Your task to perform on an android device: open app "Etsy: Buy & Sell Unique Items" Image 0: 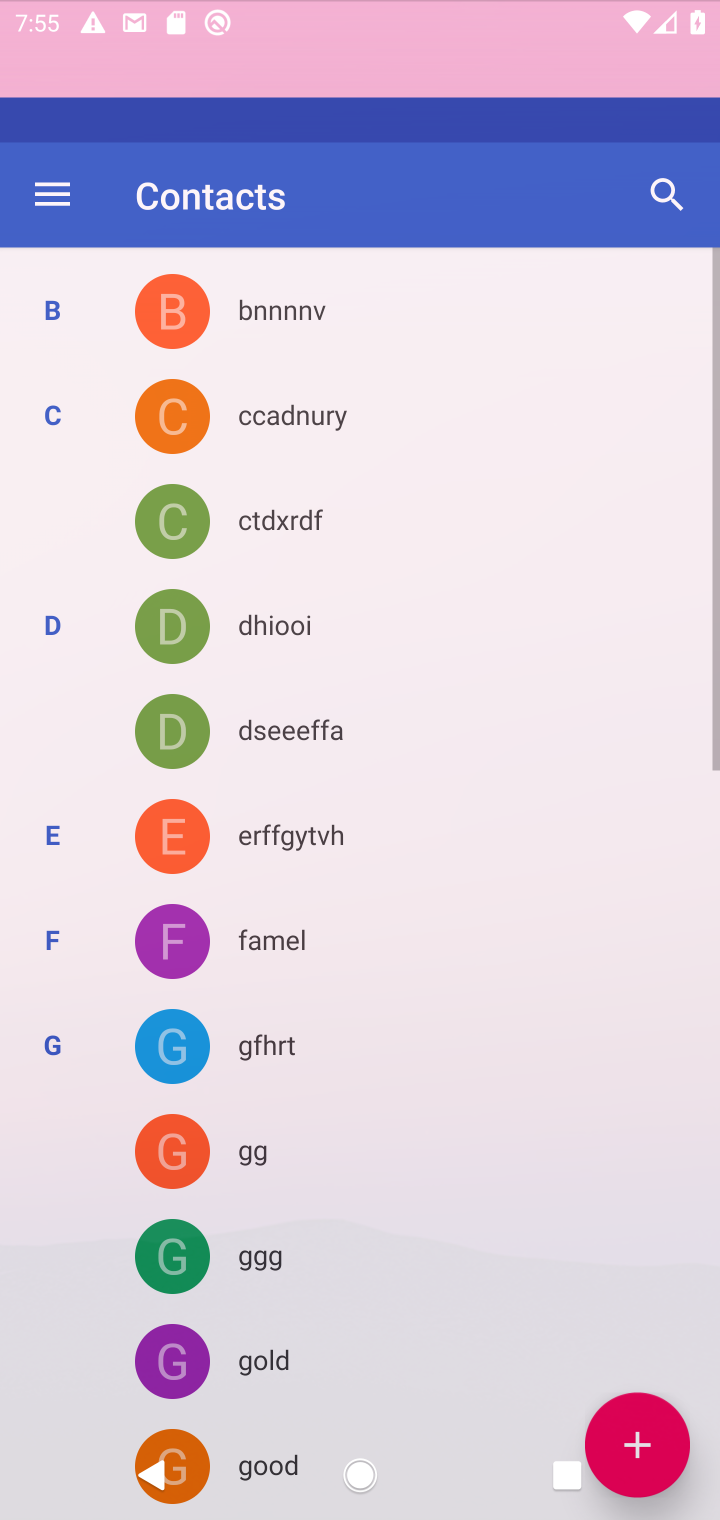
Step 0: press home button
Your task to perform on an android device: open app "Etsy: Buy & Sell Unique Items" Image 1: 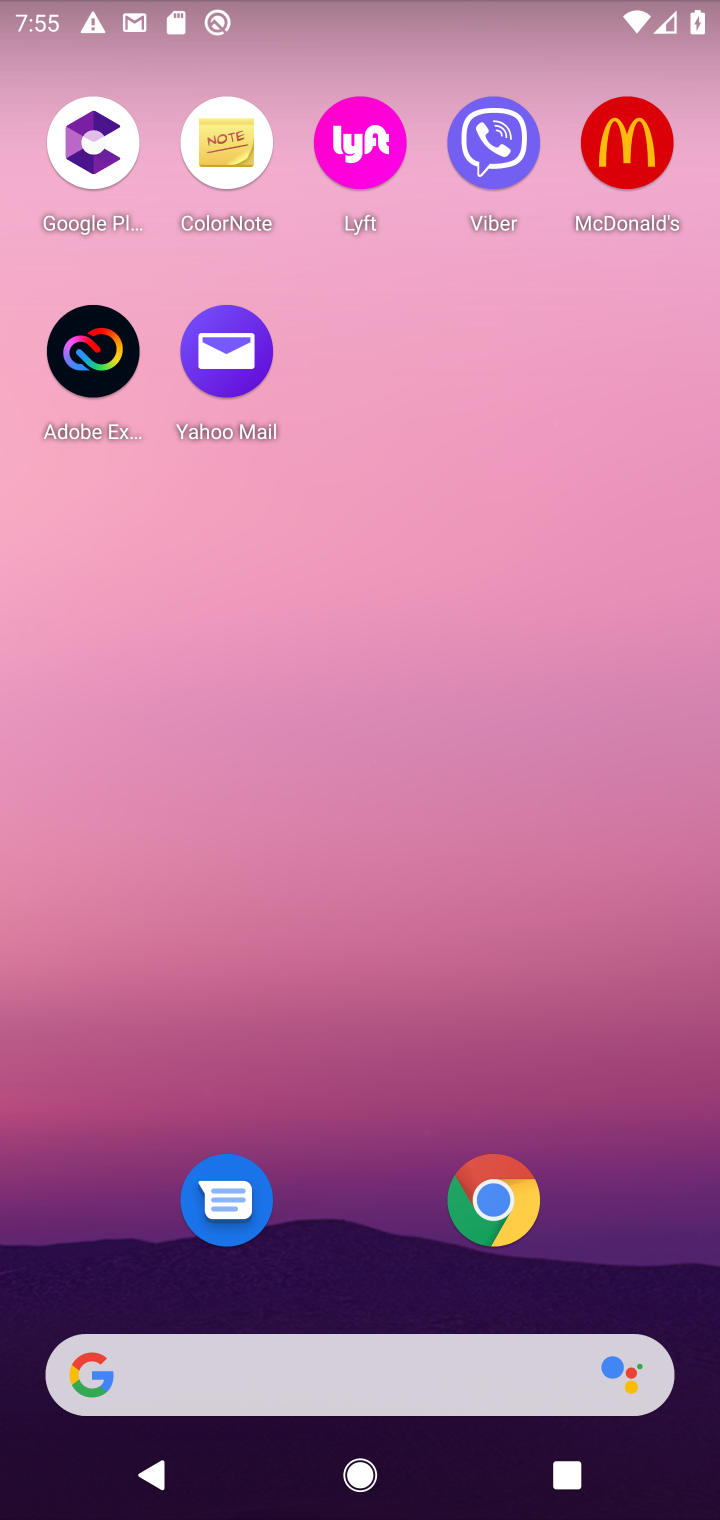
Step 1: drag from (424, 1088) to (471, 20)
Your task to perform on an android device: open app "Etsy: Buy & Sell Unique Items" Image 2: 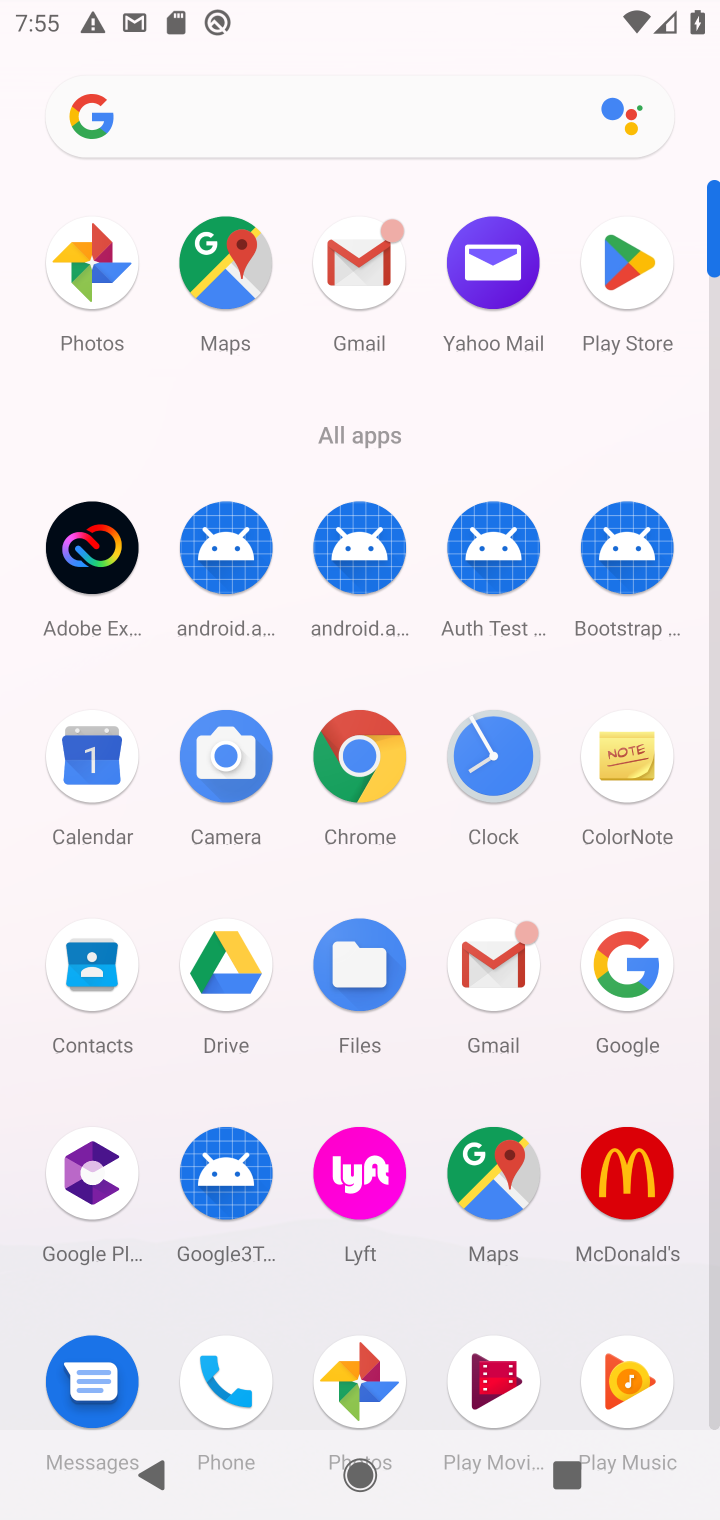
Step 2: click (637, 249)
Your task to perform on an android device: open app "Etsy: Buy & Sell Unique Items" Image 3: 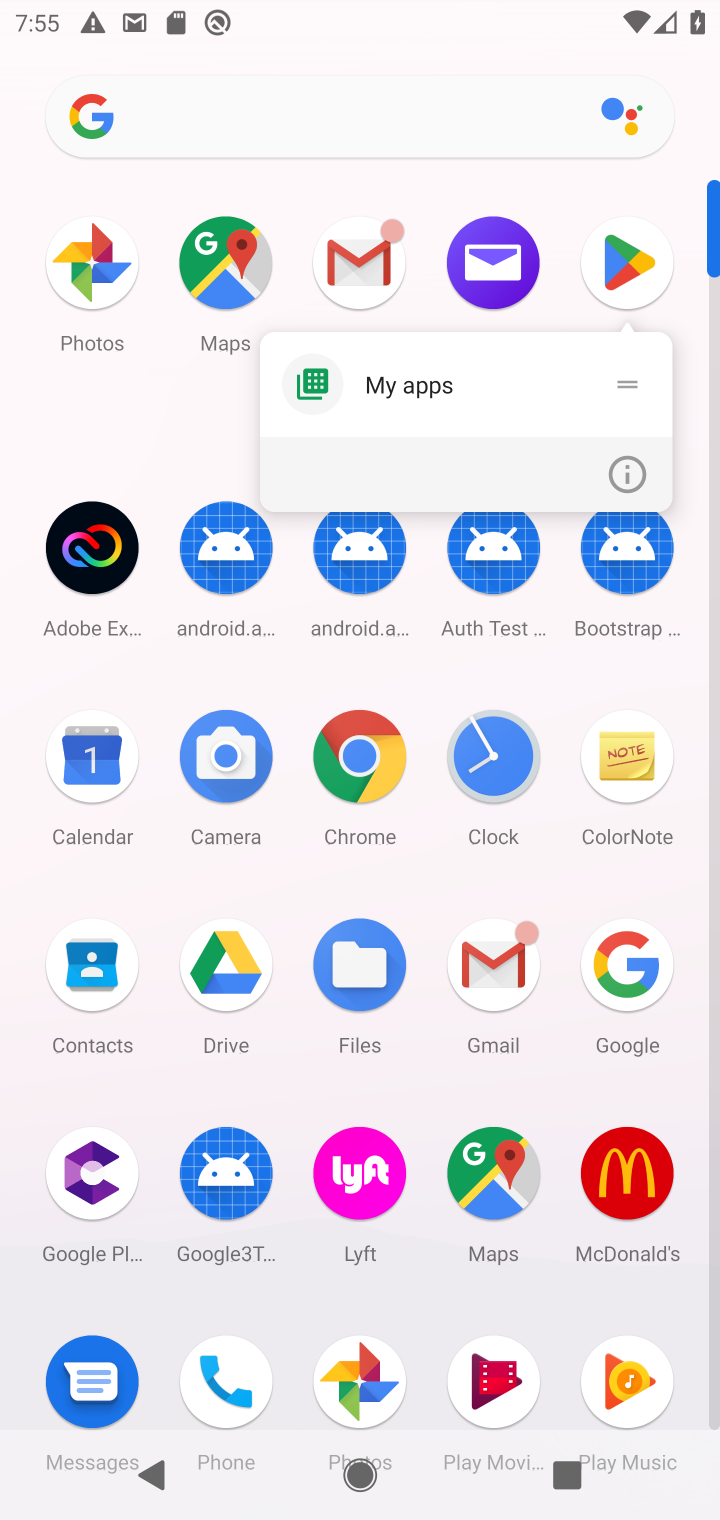
Step 3: click (629, 281)
Your task to perform on an android device: open app "Etsy: Buy & Sell Unique Items" Image 4: 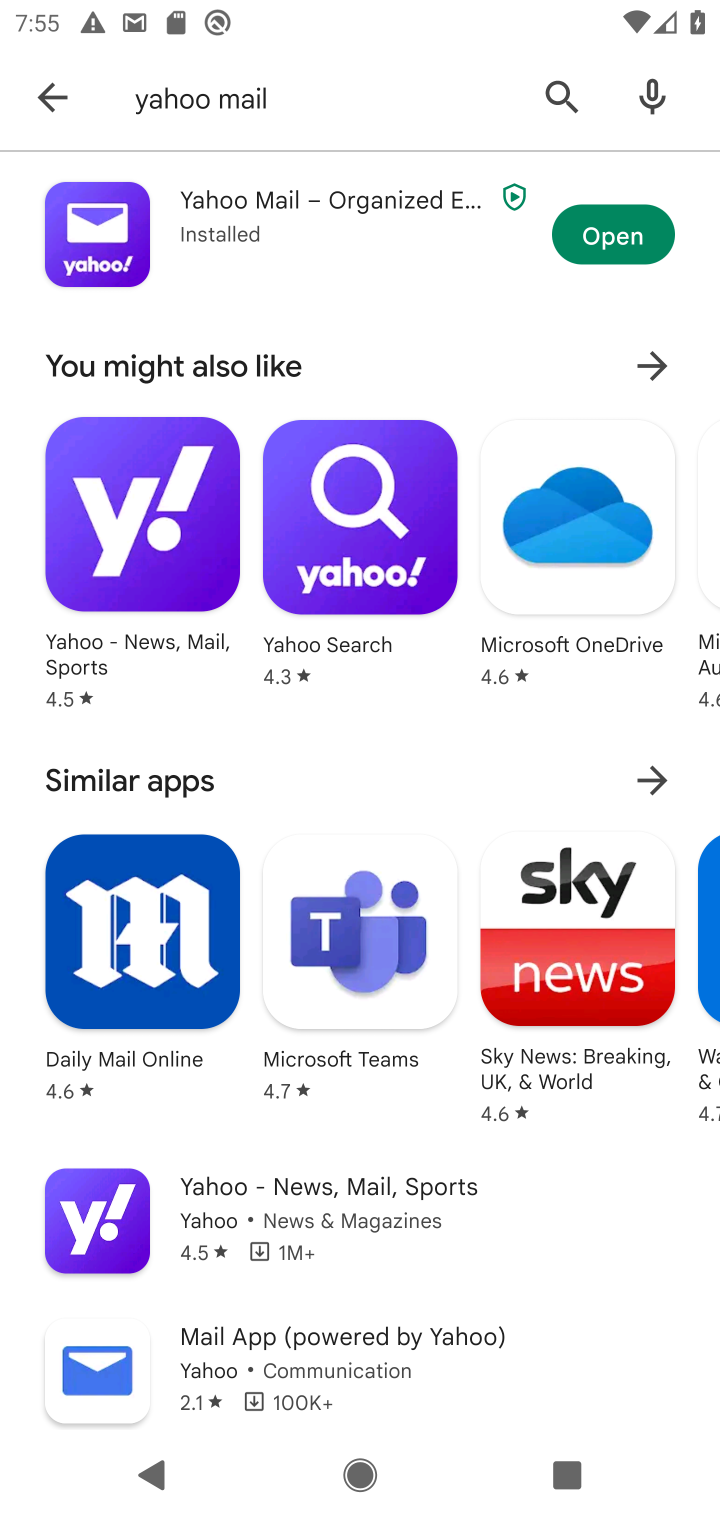
Step 4: click (563, 95)
Your task to perform on an android device: open app "Etsy: Buy & Sell Unique Items" Image 5: 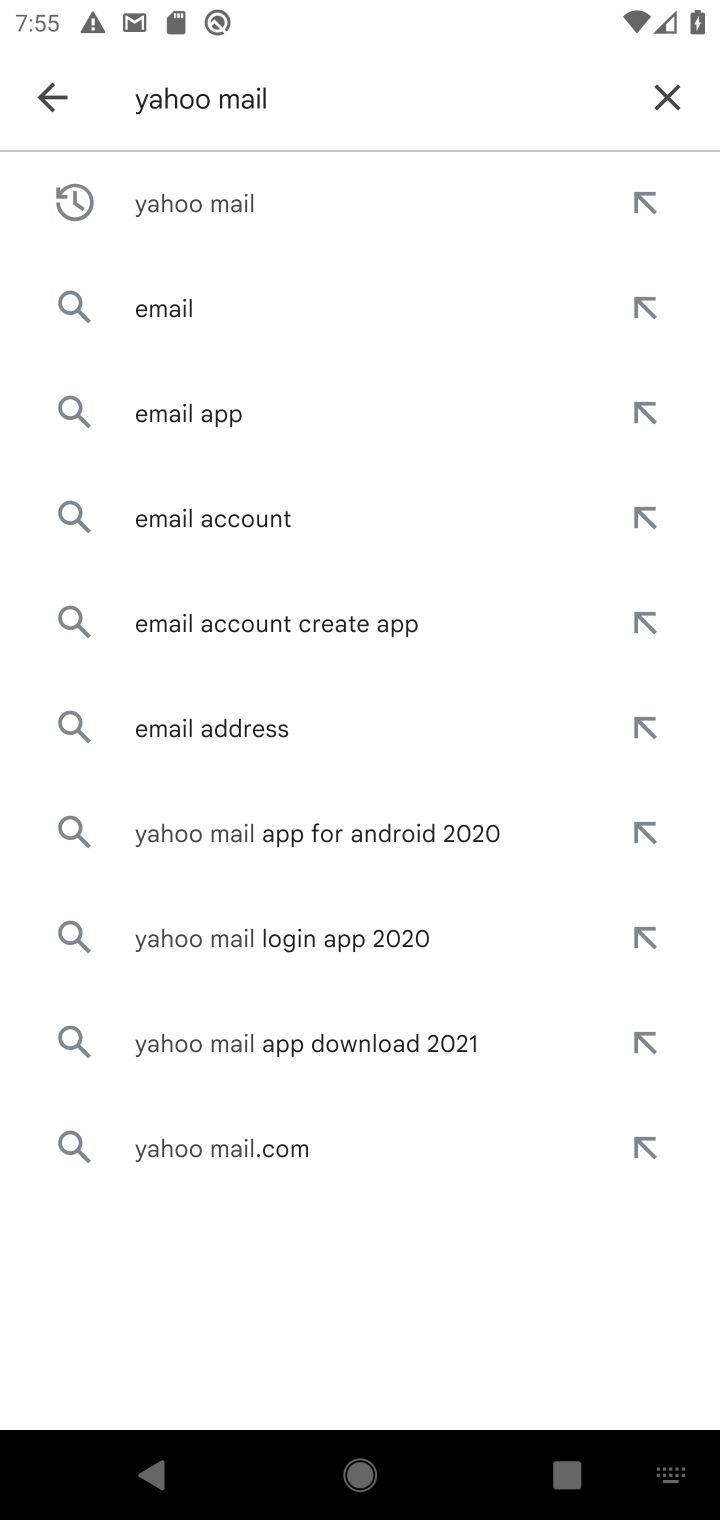
Step 5: click (661, 94)
Your task to perform on an android device: open app "Etsy: Buy & Sell Unique Items" Image 6: 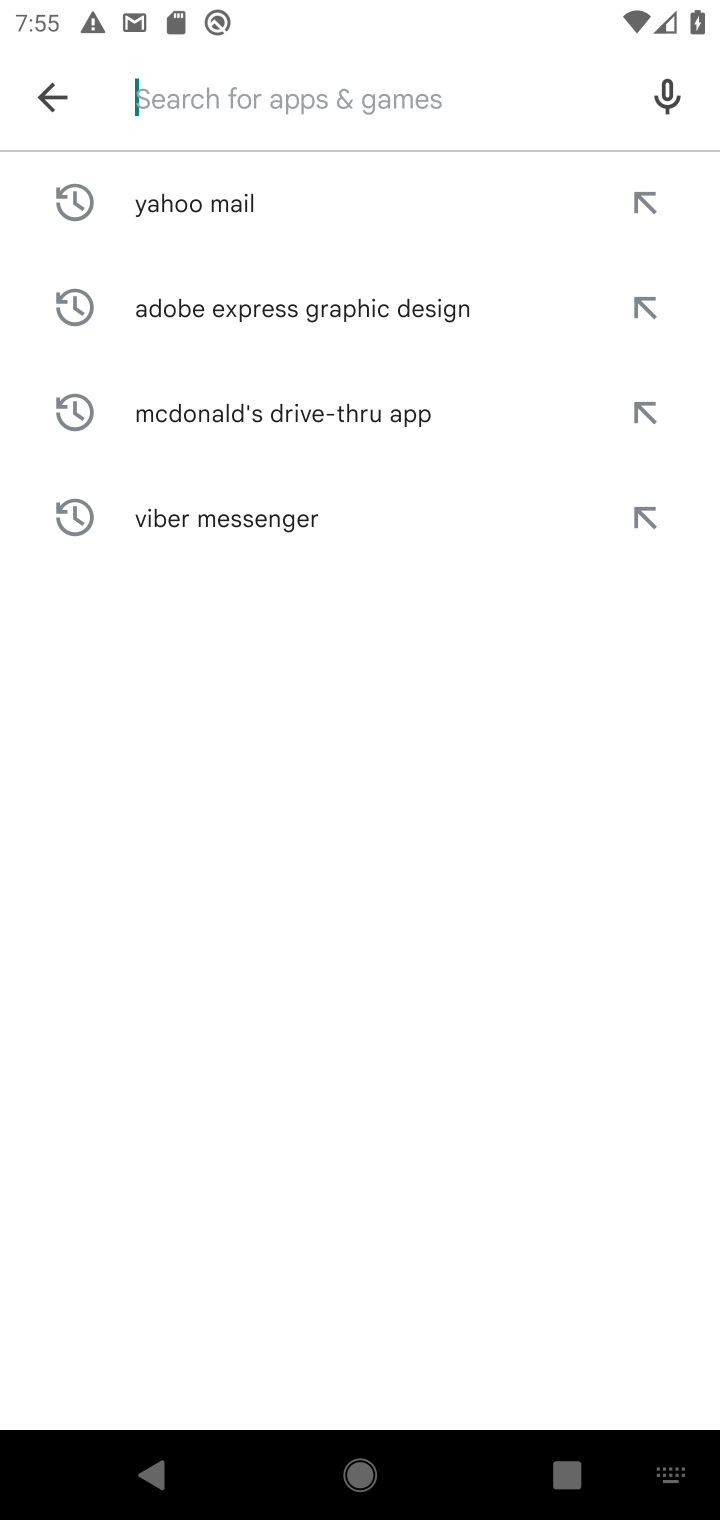
Step 6: type "Etsy: Buy & Sell Unique Items"
Your task to perform on an android device: open app "Etsy: Buy & Sell Unique Items" Image 7: 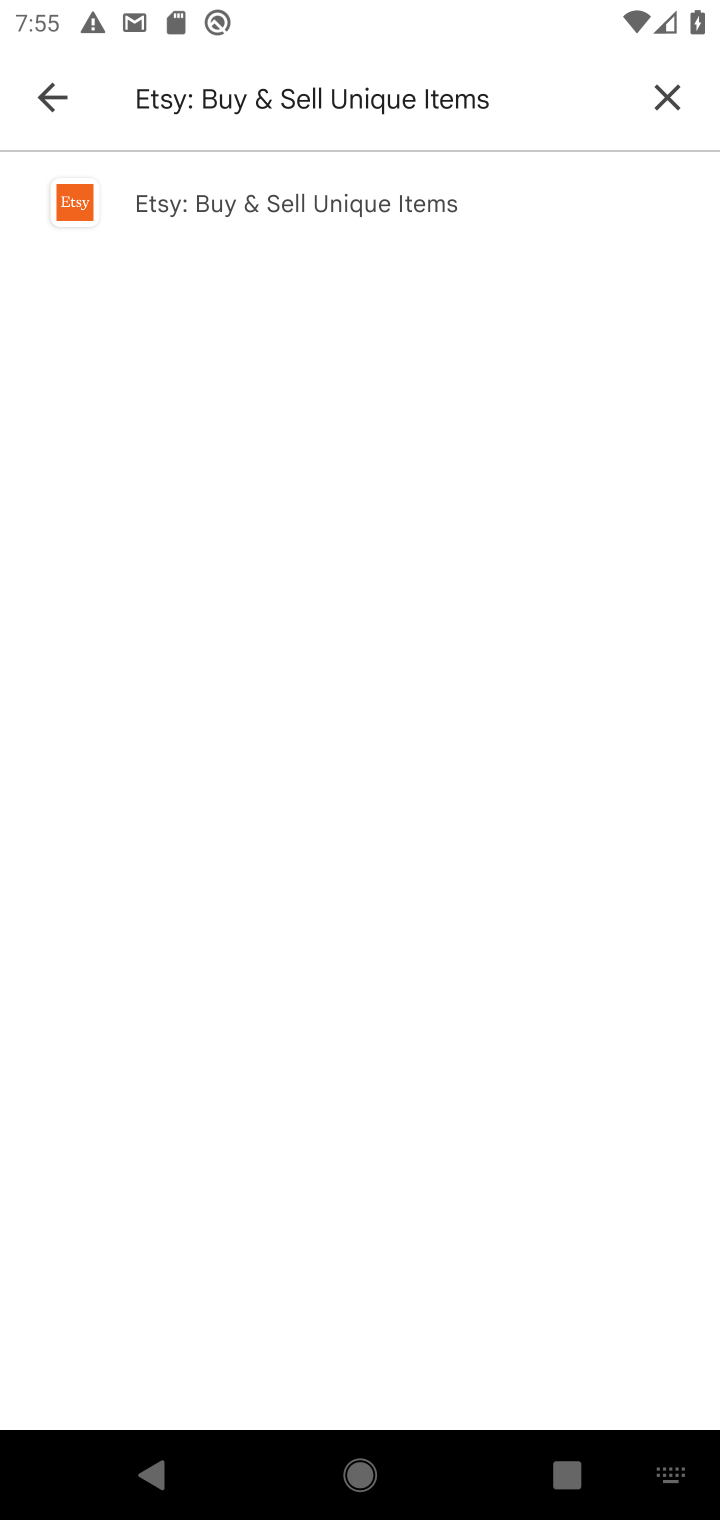
Step 7: click (118, 204)
Your task to perform on an android device: open app "Etsy: Buy & Sell Unique Items" Image 8: 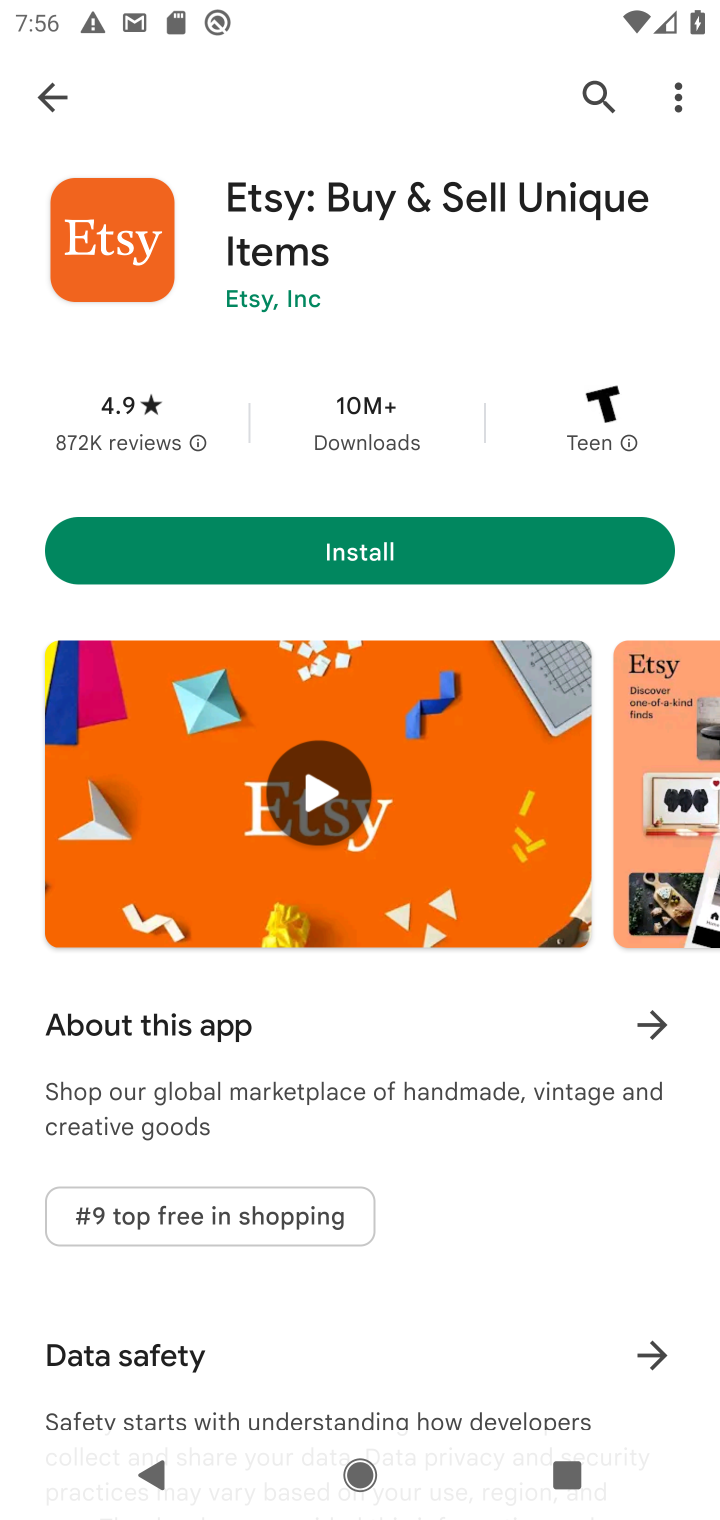
Step 8: click (343, 551)
Your task to perform on an android device: open app "Etsy: Buy & Sell Unique Items" Image 9: 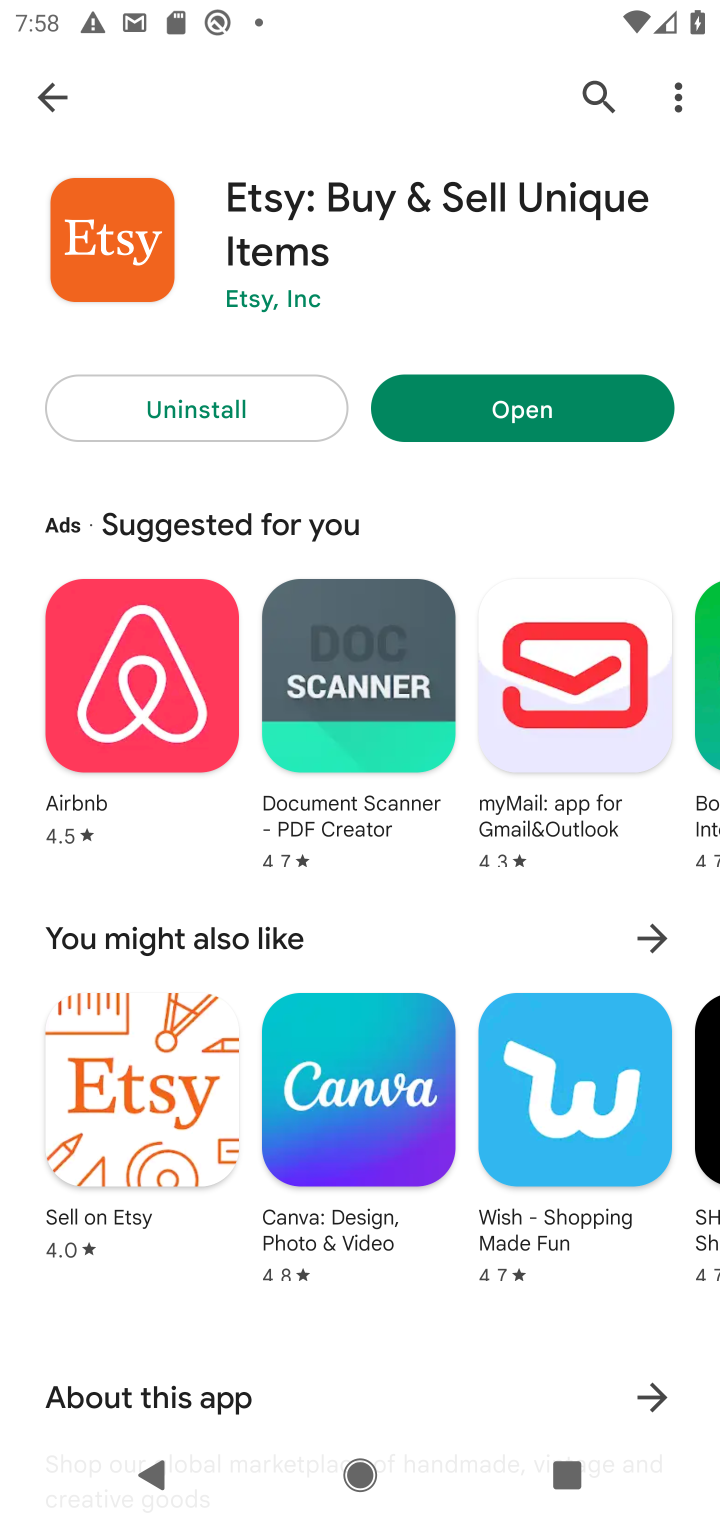
Step 9: click (528, 407)
Your task to perform on an android device: open app "Etsy: Buy & Sell Unique Items" Image 10: 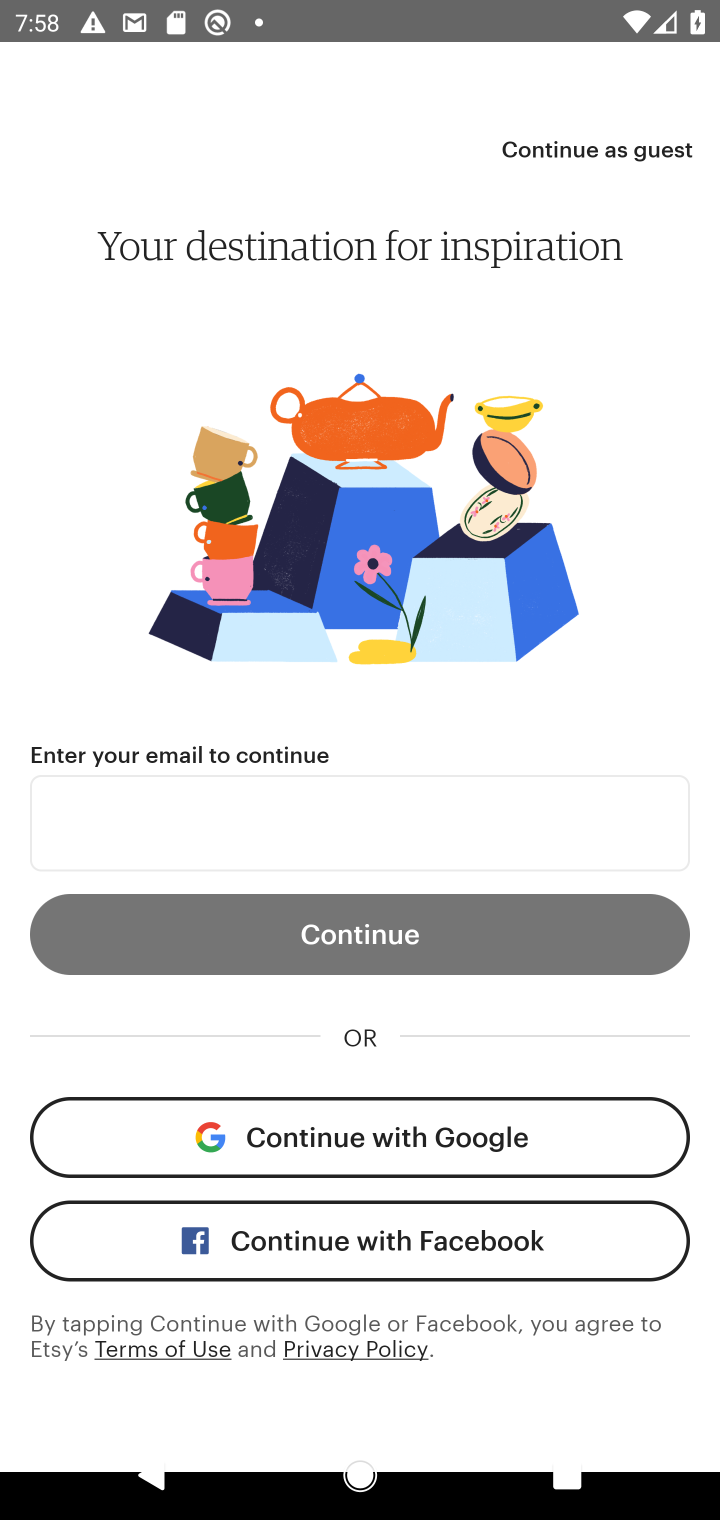
Step 10: task complete